Your task to perform on an android device: open wifi settings Image 0: 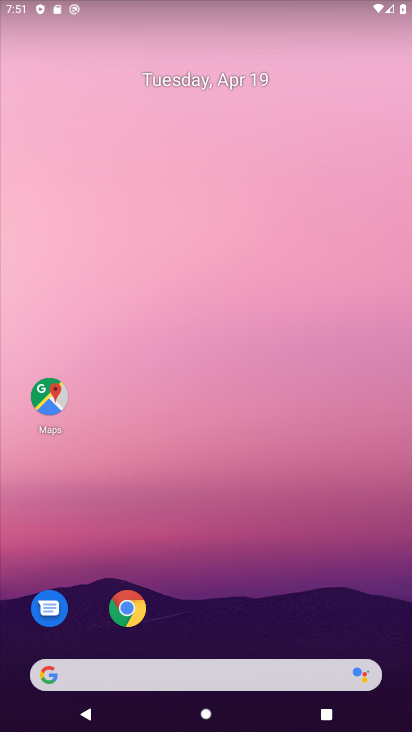
Step 0: drag from (209, 635) to (300, 115)
Your task to perform on an android device: open wifi settings Image 1: 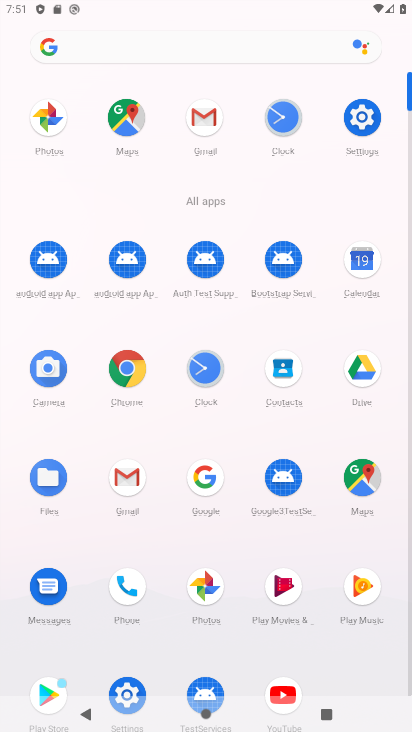
Step 1: click (361, 118)
Your task to perform on an android device: open wifi settings Image 2: 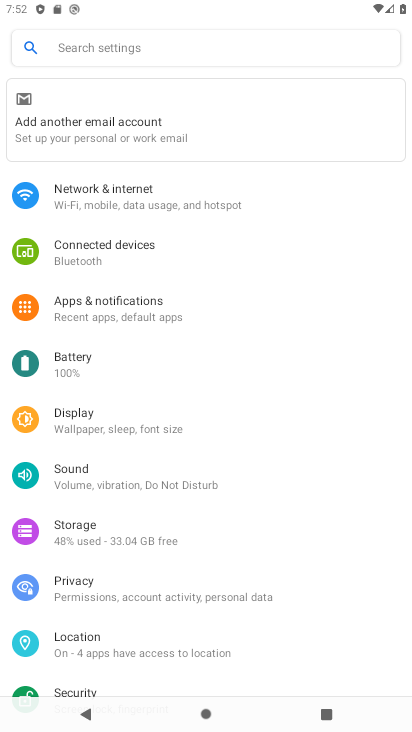
Step 2: click (136, 193)
Your task to perform on an android device: open wifi settings Image 3: 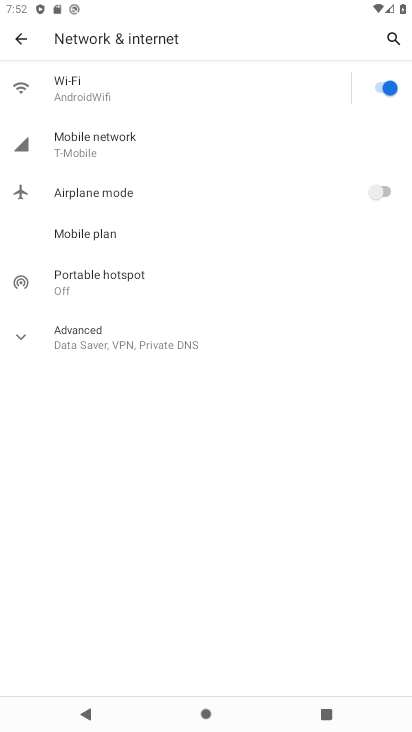
Step 3: click (91, 96)
Your task to perform on an android device: open wifi settings Image 4: 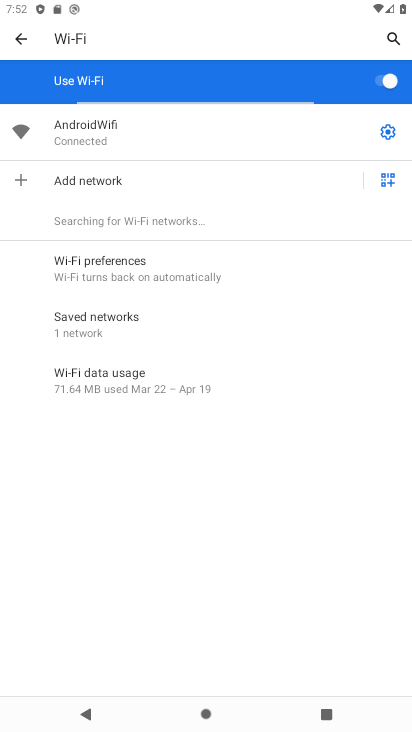
Step 4: click (132, 135)
Your task to perform on an android device: open wifi settings Image 5: 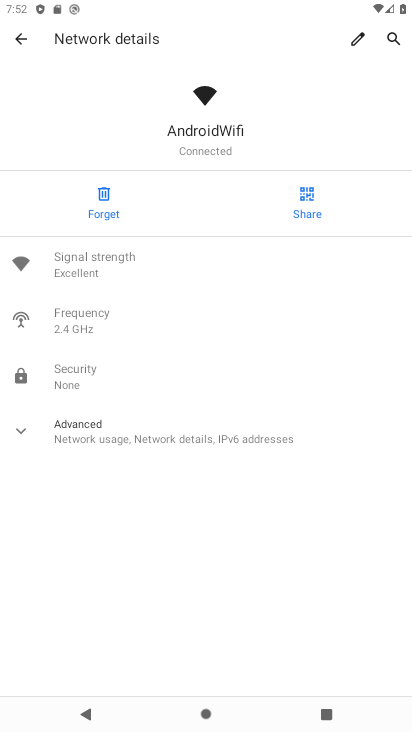
Step 5: task complete